Your task to perform on an android device: turn off translation in the chrome app Image 0: 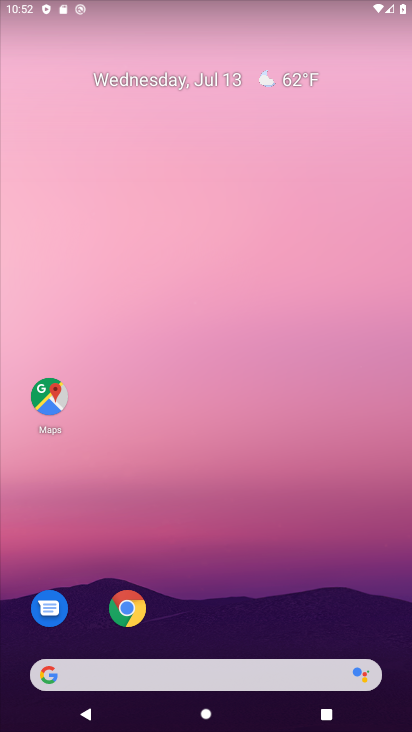
Step 0: click (129, 607)
Your task to perform on an android device: turn off translation in the chrome app Image 1: 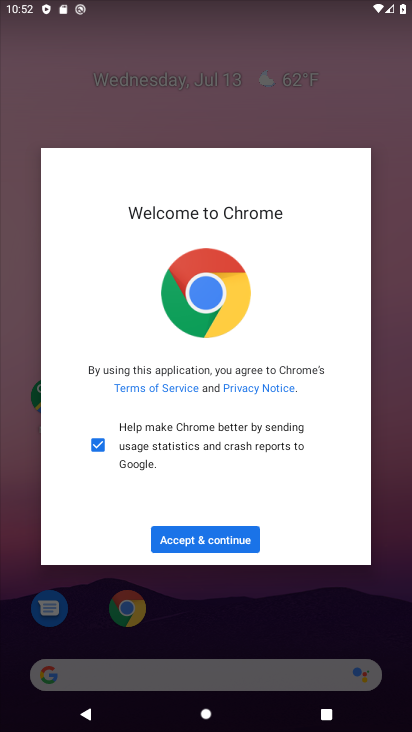
Step 1: click (237, 542)
Your task to perform on an android device: turn off translation in the chrome app Image 2: 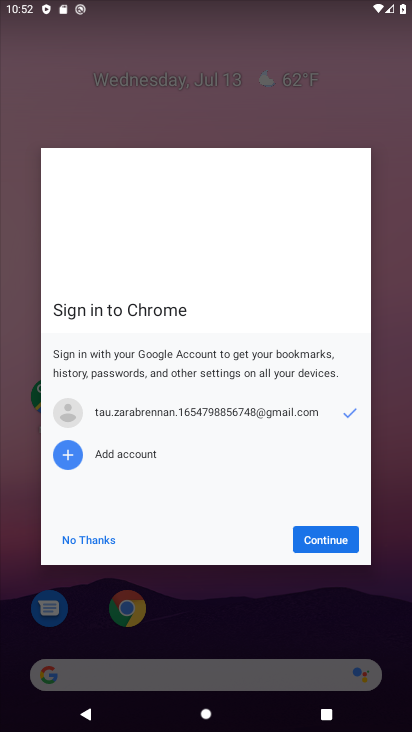
Step 2: click (324, 539)
Your task to perform on an android device: turn off translation in the chrome app Image 3: 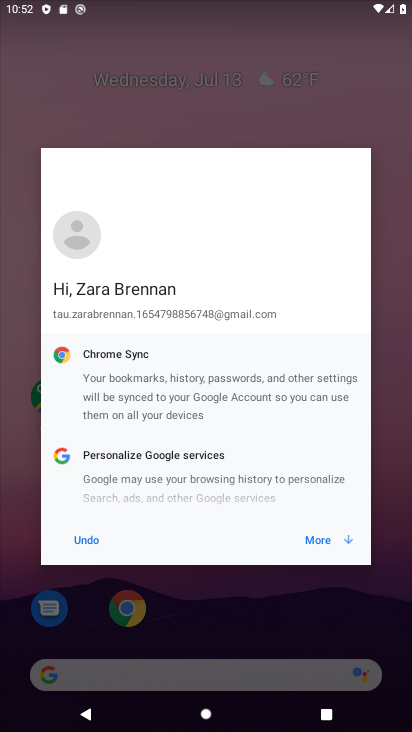
Step 3: click (324, 539)
Your task to perform on an android device: turn off translation in the chrome app Image 4: 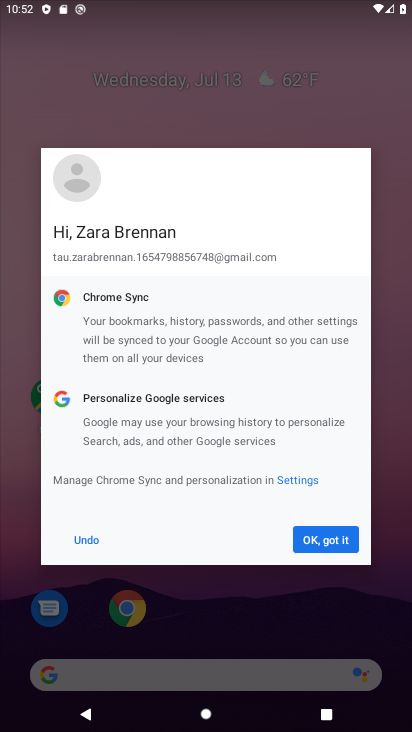
Step 4: click (324, 539)
Your task to perform on an android device: turn off translation in the chrome app Image 5: 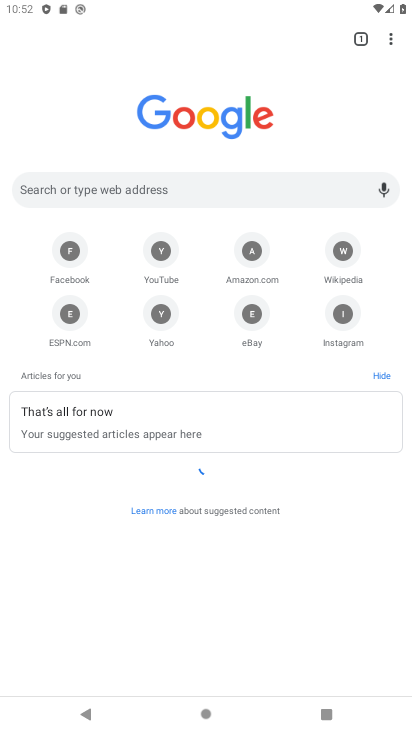
Step 5: click (392, 42)
Your task to perform on an android device: turn off translation in the chrome app Image 6: 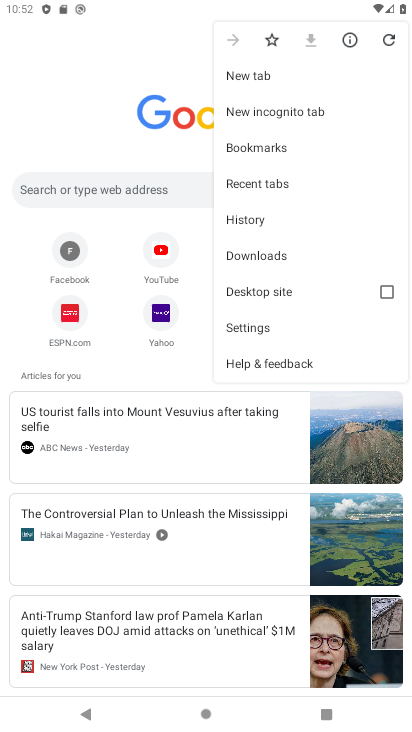
Step 6: click (247, 327)
Your task to perform on an android device: turn off translation in the chrome app Image 7: 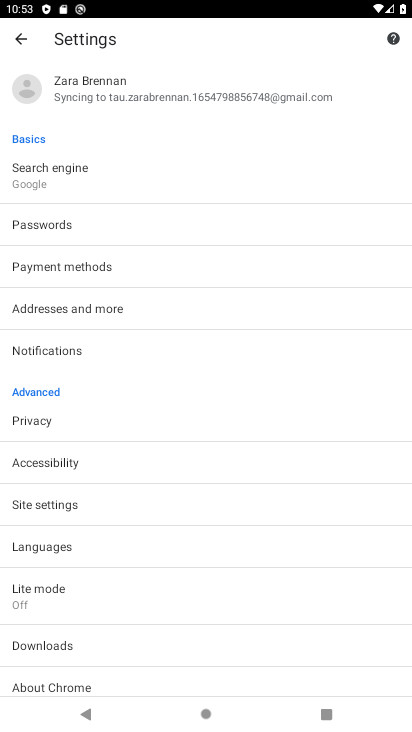
Step 7: click (46, 548)
Your task to perform on an android device: turn off translation in the chrome app Image 8: 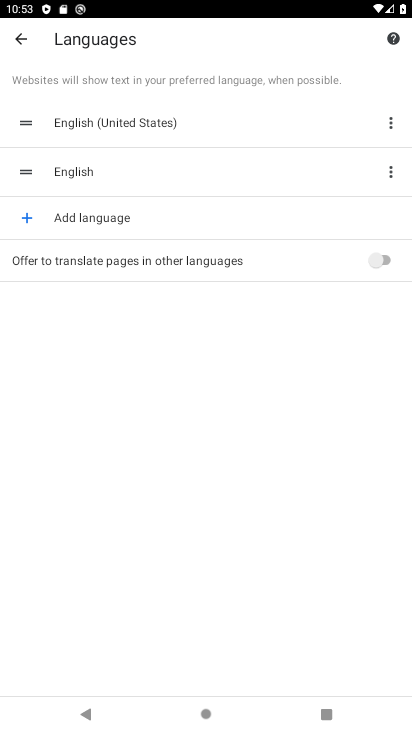
Step 8: task complete